Your task to perform on an android device: Open network settings Image 0: 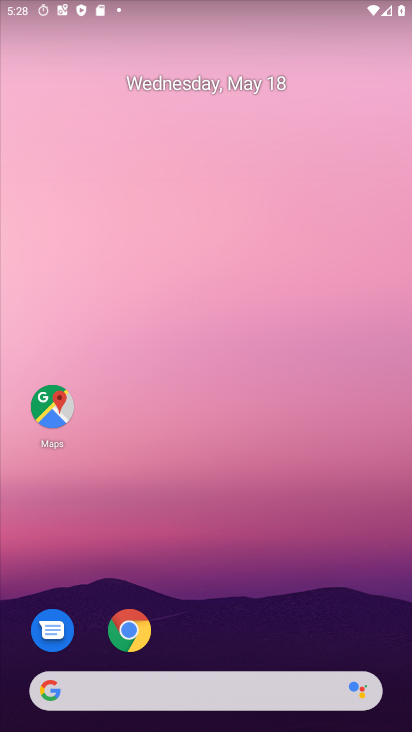
Step 0: drag from (195, 664) to (207, 251)
Your task to perform on an android device: Open network settings Image 1: 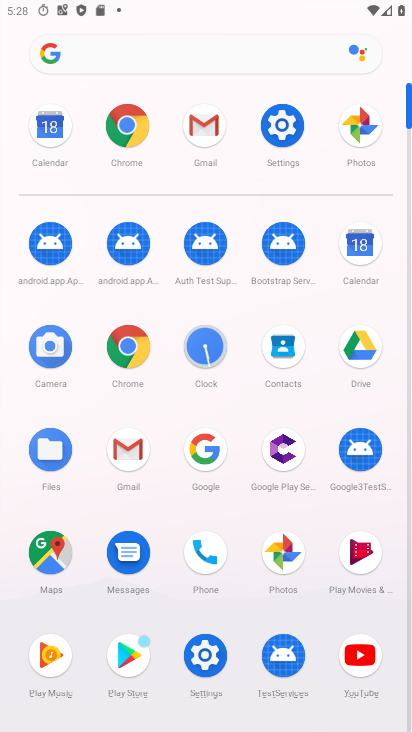
Step 1: click (282, 124)
Your task to perform on an android device: Open network settings Image 2: 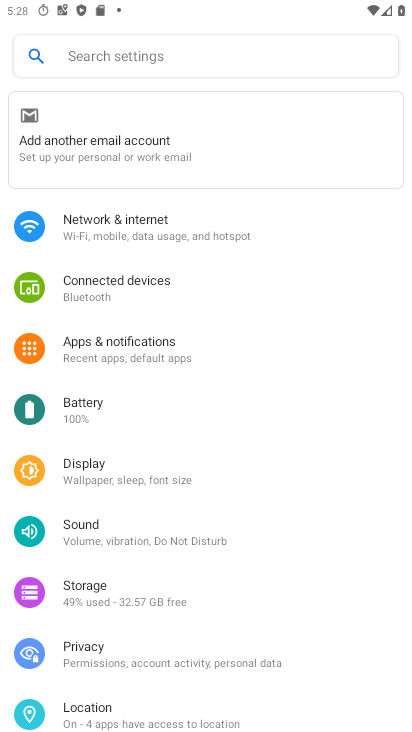
Step 2: click (117, 220)
Your task to perform on an android device: Open network settings Image 3: 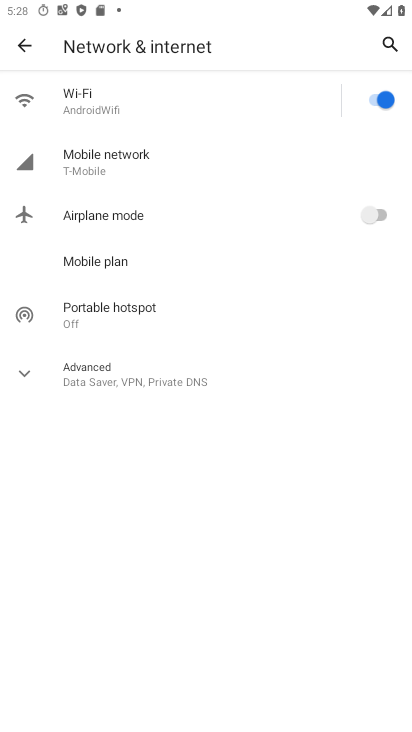
Step 3: click (102, 377)
Your task to perform on an android device: Open network settings Image 4: 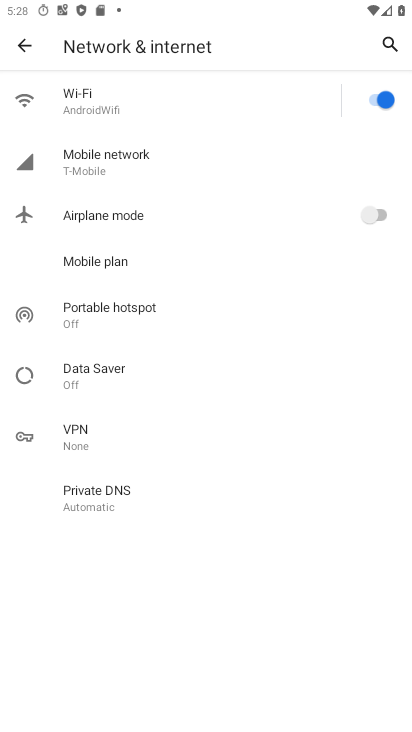
Step 4: task complete